Your task to perform on an android device: Open Google Maps and go to "Timeline" Image 0: 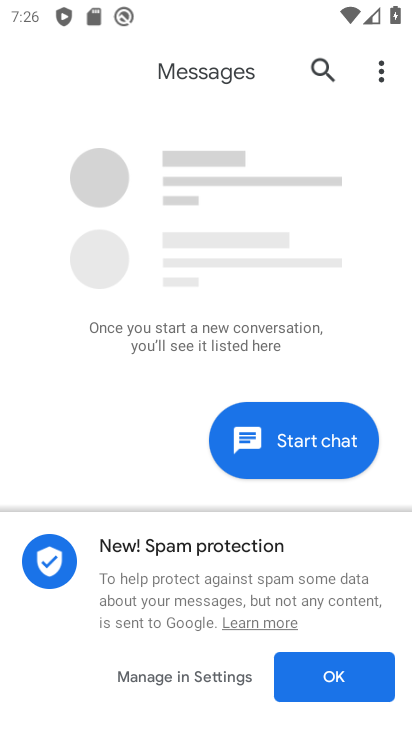
Step 0: press home button
Your task to perform on an android device: Open Google Maps and go to "Timeline" Image 1: 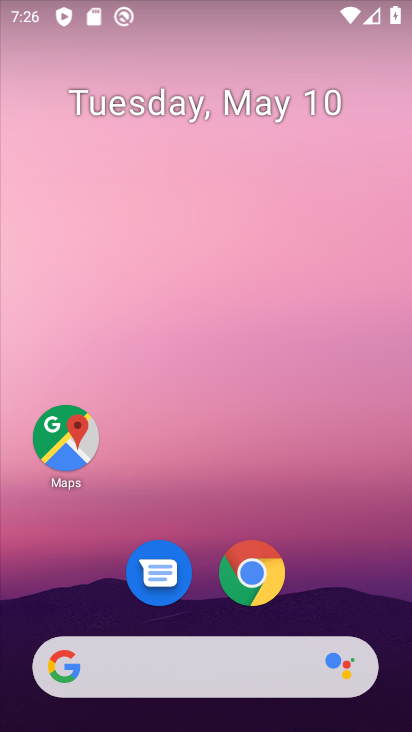
Step 1: drag from (368, 591) to (332, 176)
Your task to perform on an android device: Open Google Maps and go to "Timeline" Image 2: 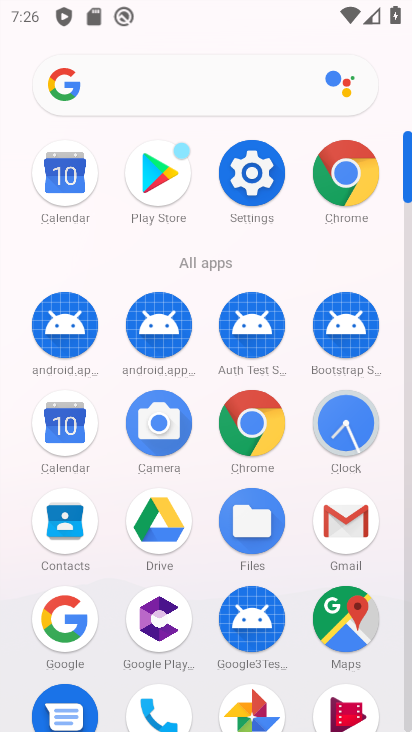
Step 2: click (345, 626)
Your task to perform on an android device: Open Google Maps and go to "Timeline" Image 3: 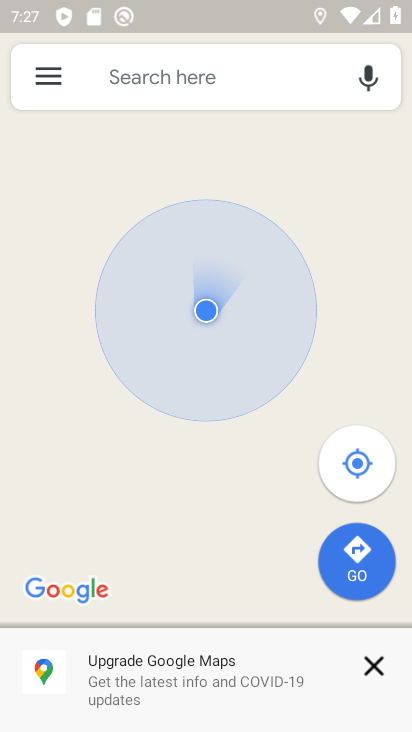
Step 3: click (41, 78)
Your task to perform on an android device: Open Google Maps and go to "Timeline" Image 4: 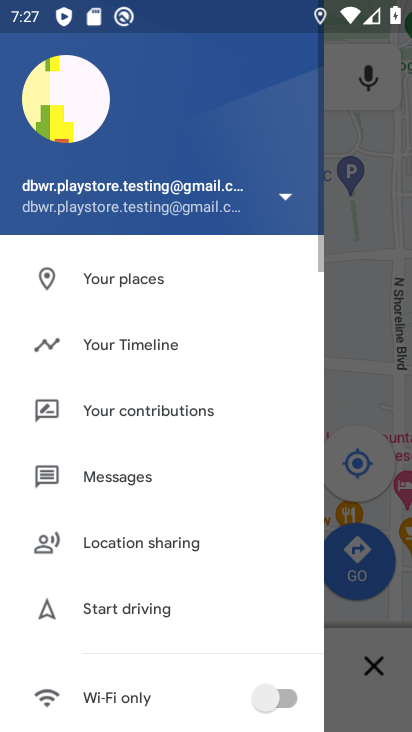
Step 4: click (158, 344)
Your task to perform on an android device: Open Google Maps and go to "Timeline" Image 5: 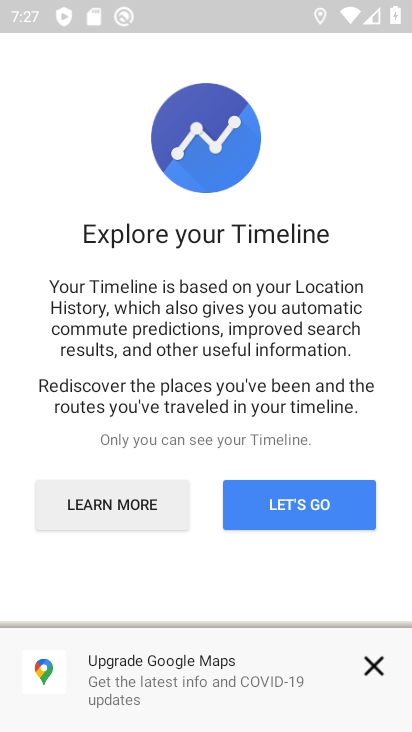
Step 5: click (333, 518)
Your task to perform on an android device: Open Google Maps and go to "Timeline" Image 6: 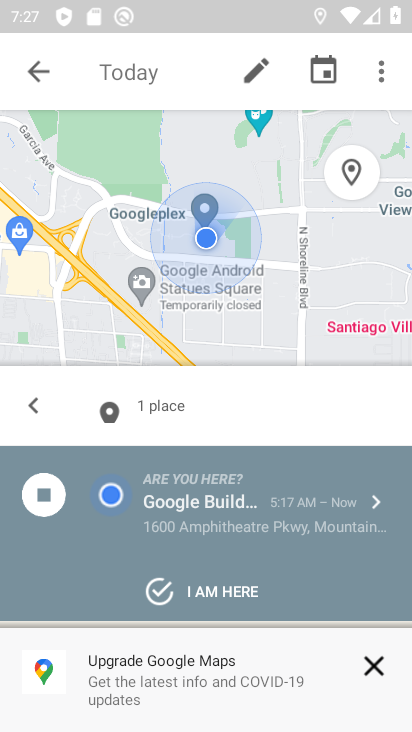
Step 6: task complete